Your task to perform on an android device: Add "bose soundlink" to the cart on bestbuy.com Image 0: 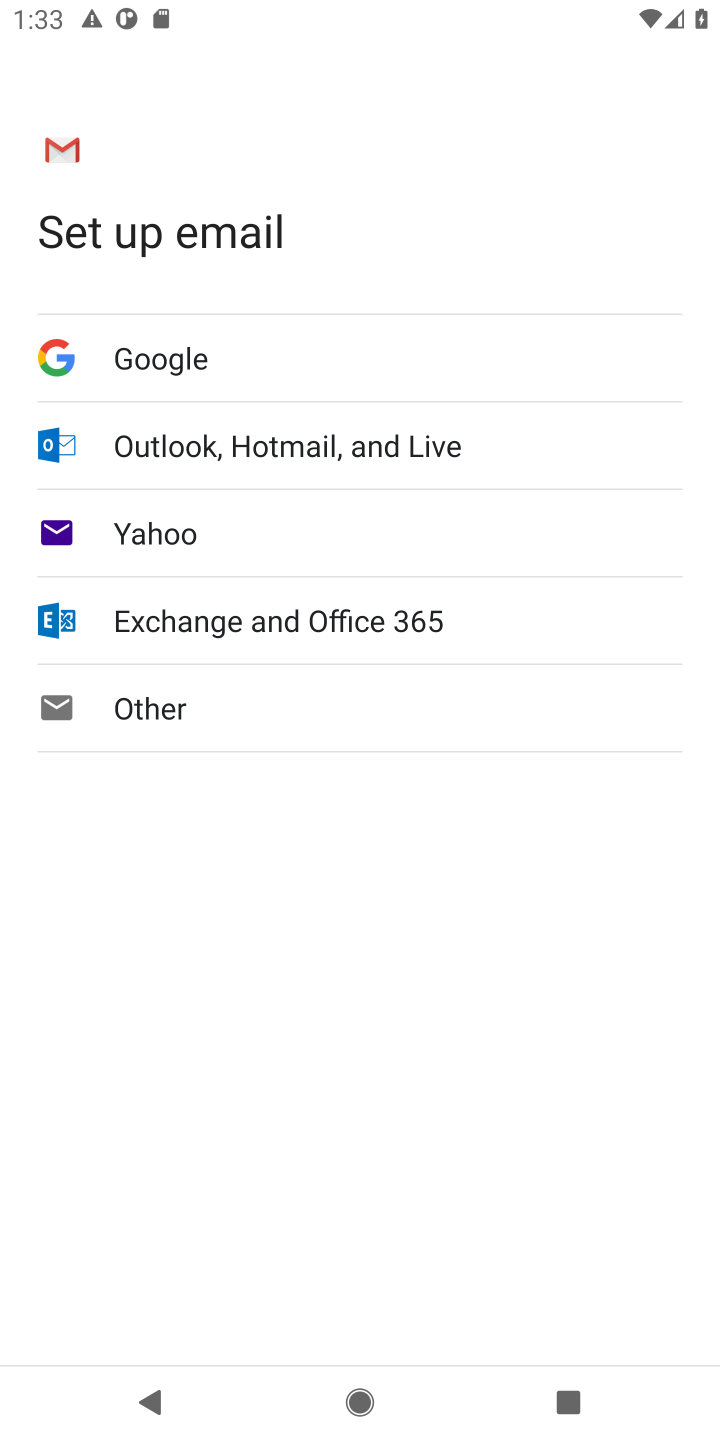
Step 0: press home button
Your task to perform on an android device: Add "bose soundlink" to the cart on bestbuy.com Image 1: 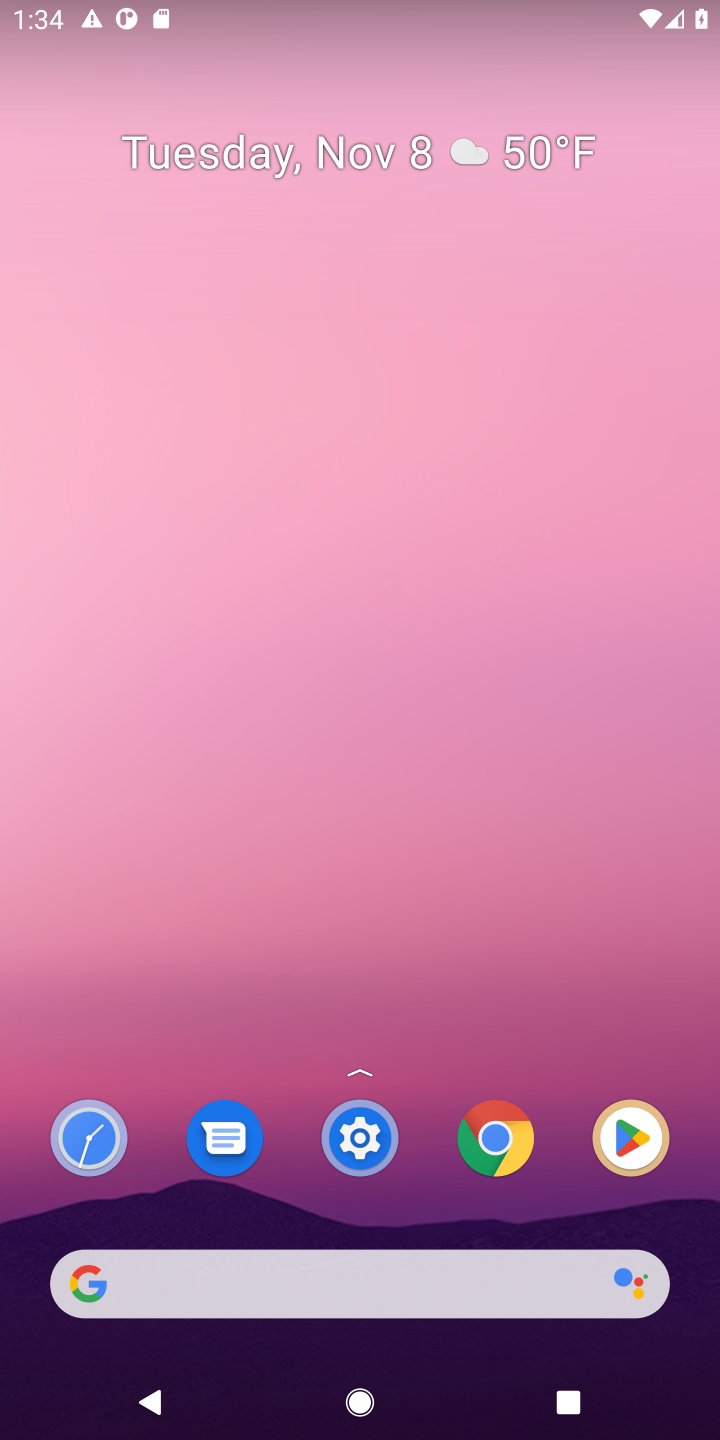
Step 1: click (306, 1297)
Your task to perform on an android device: Add "bose soundlink" to the cart on bestbuy.com Image 2: 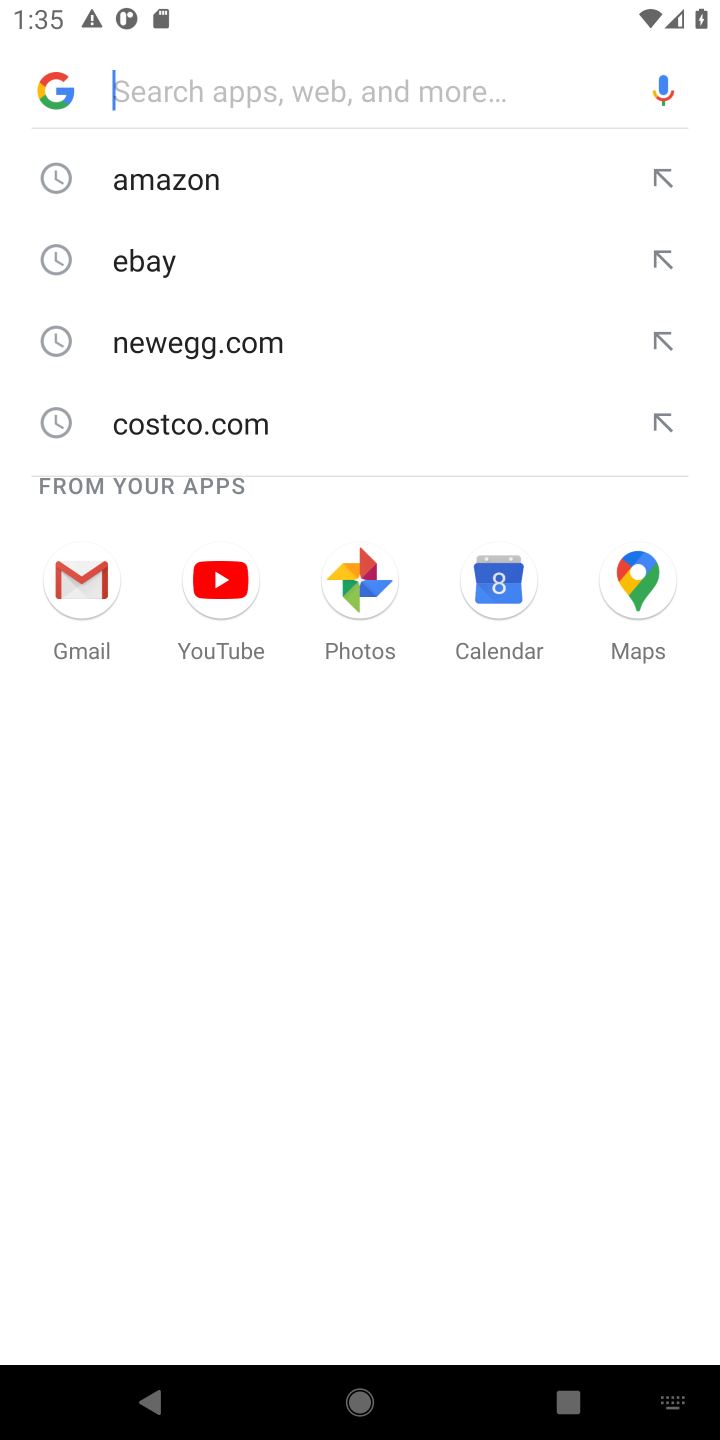
Step 2: type "bestbuy"
Your task to perform on an android device: Add "bose soundlink" to the cart on bestbuy.com Image 3: 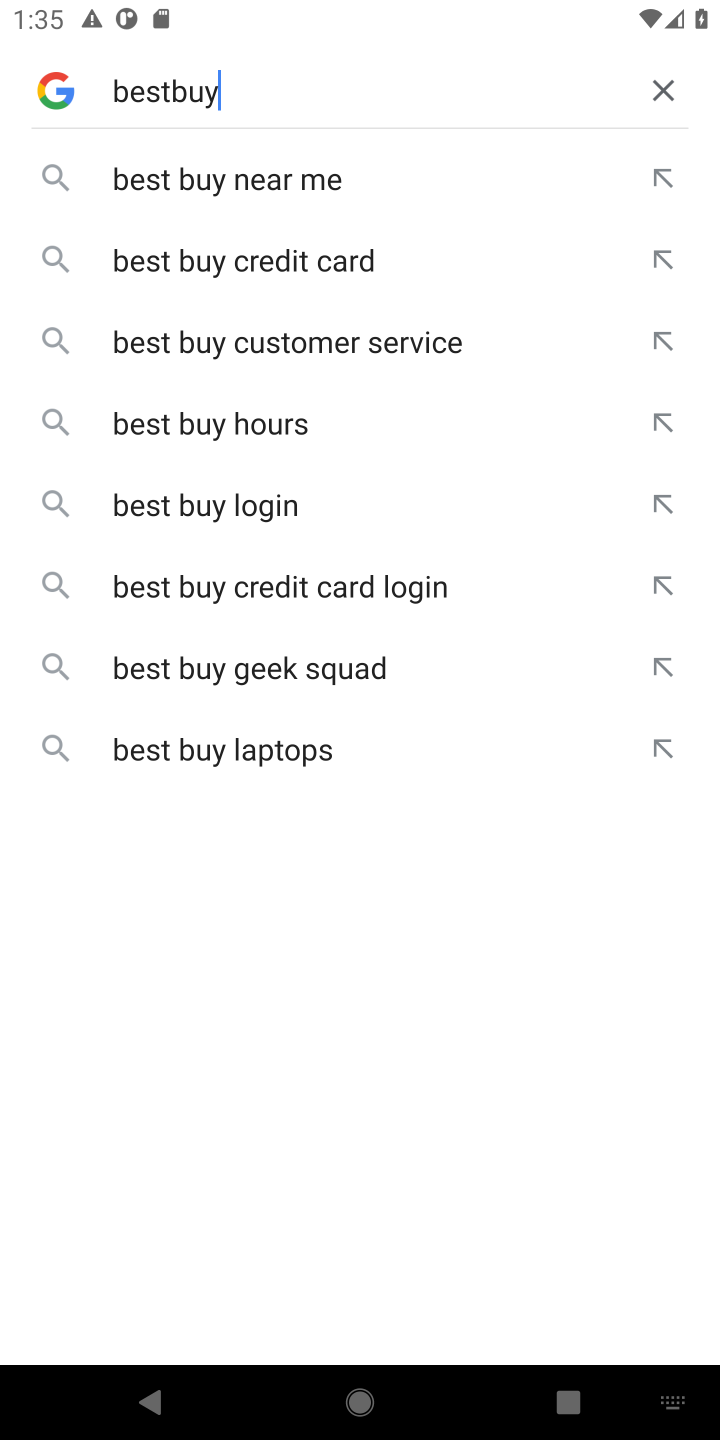
Step 3: click (182, 205)
Your task to perform on an android device: Add "bose soundlink" to the cart on bestbuy.com Image 4: 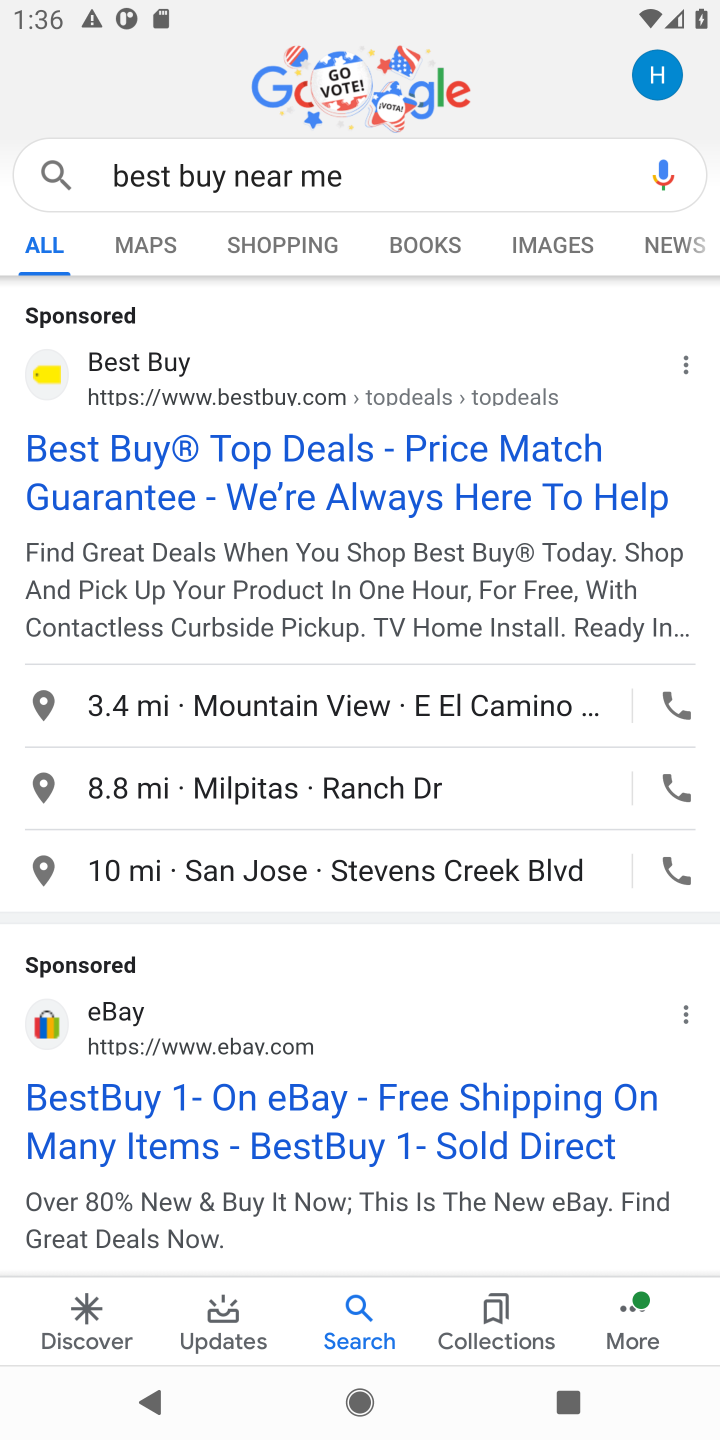
Step 4: click (462, 475)
Your task to perform on an android device: Add "bose soundlink" to the cart on bestbuy.com Image 5: 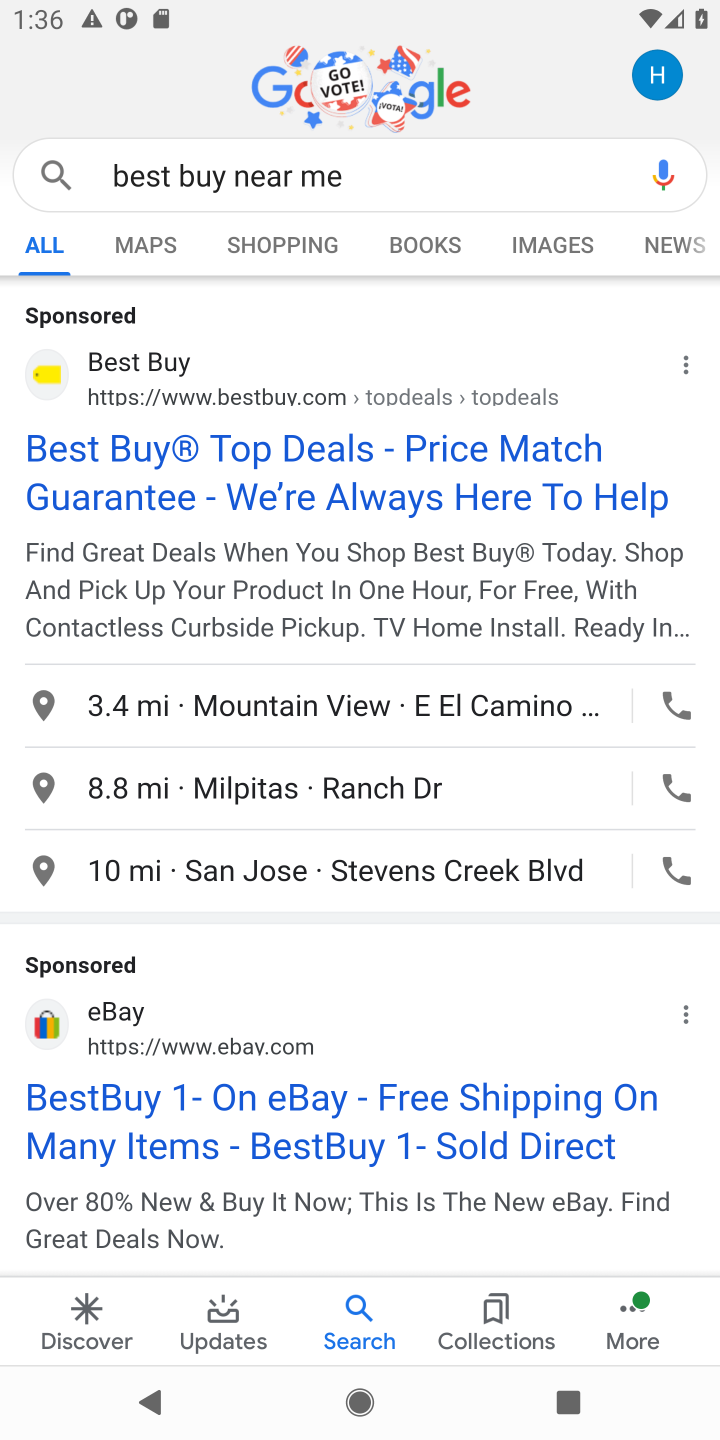
Step 5: task complete